Your task to perform on an android device: search for starred emails in the gmail app Image 0: 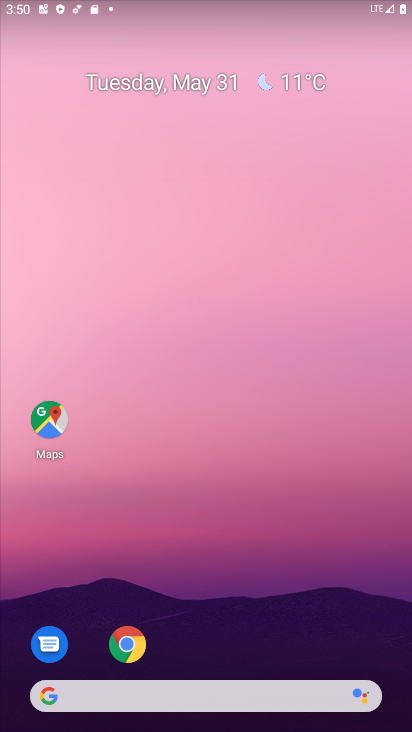
Step 0: drag from (253, 635) to (235, 203)
Your task to perform on an android device: search for starred emails in the gmail app Image 1: 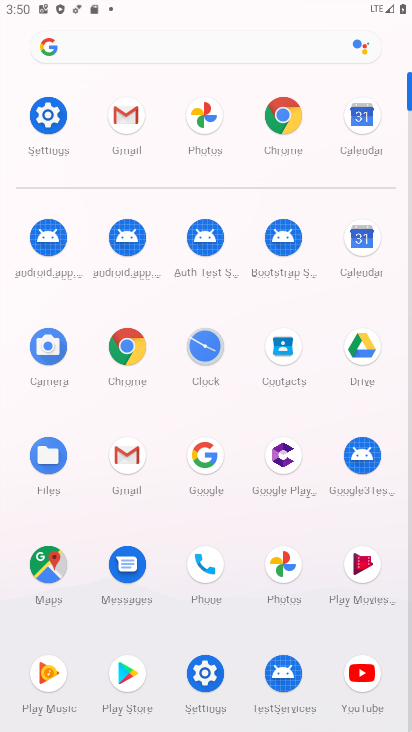
Step 1: click (125, 125)
Your task to perform on an android device: search for starred emails in the gmail app Image 2: 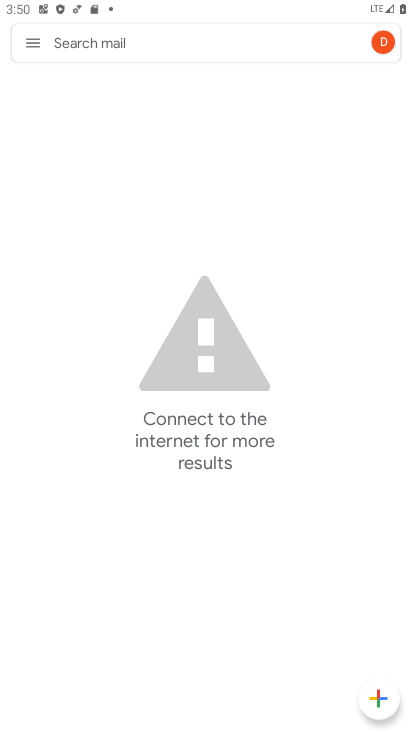
Step 2: click (33, 45)
Your task to perform on an android device: search for starred emails in the gmail app Image 3: 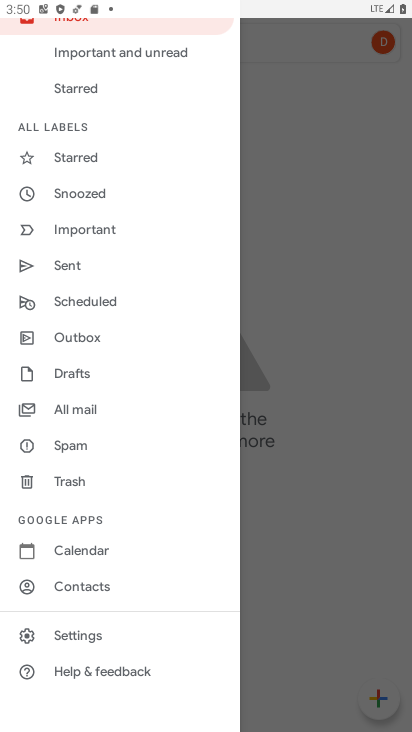
Step 3: click (83, 154)
Your task to perform on an android device: search for starred emails in the gmail app Image 4: 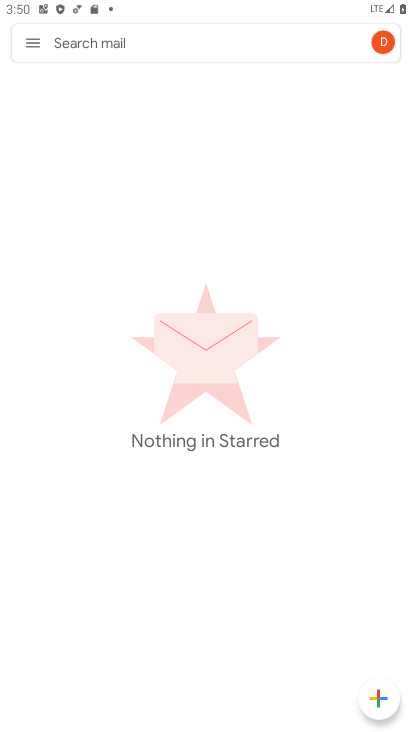
Step 4: task complete